Your task to perform on an android device: check battery use Image 0: 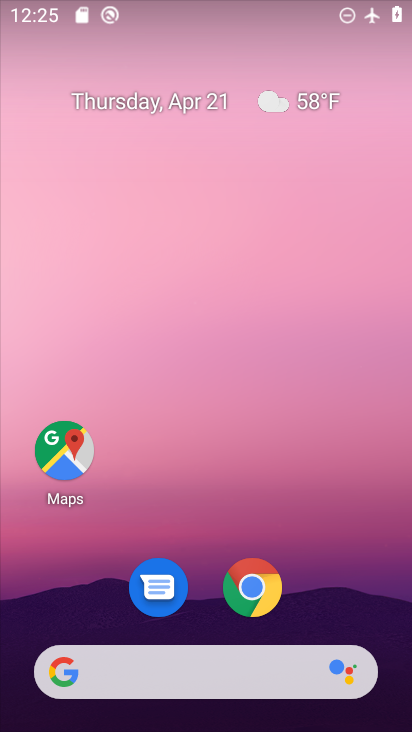
Step 0: click (197, 222)
Your task to perform on an android device: check battery use Image 1: 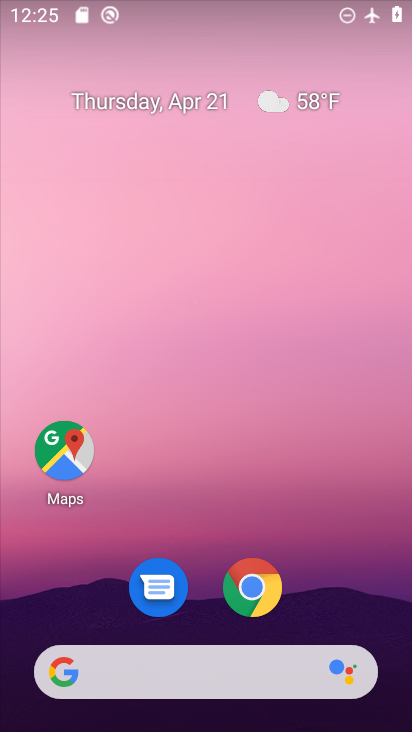
Step 1: drag from (214, 593) to (301, 57)
Your task to perform on an android device: check battery use Image 2: 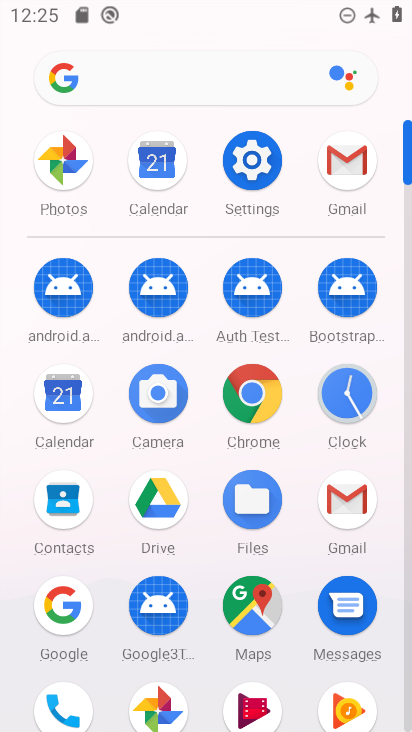
Step 2: click (249, 177)
Your task to perform on an android device: check battery use Image 3: 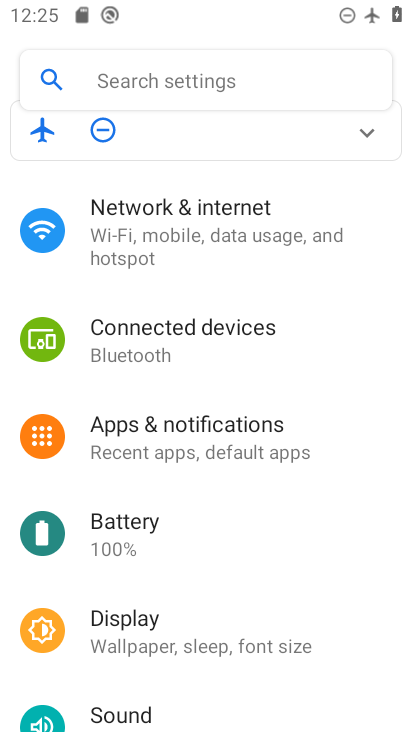
Step 3: click (135, 556)
Your task to perform on an android device: check battery use Image 4: 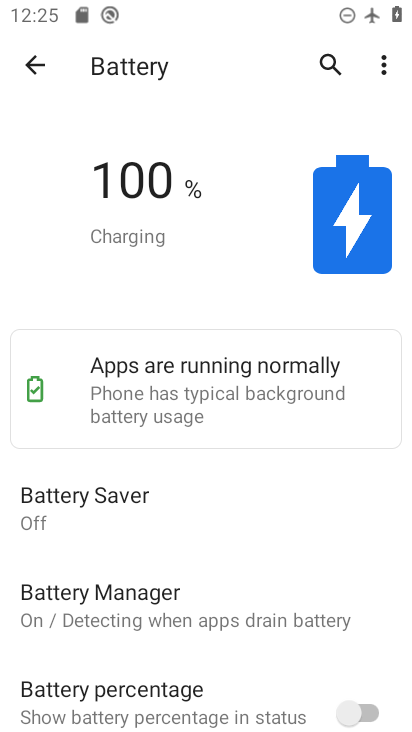
Step 4: drag from (150, 481) to (161, 187)
Your task to perform on an android device: check battery use Image 5: 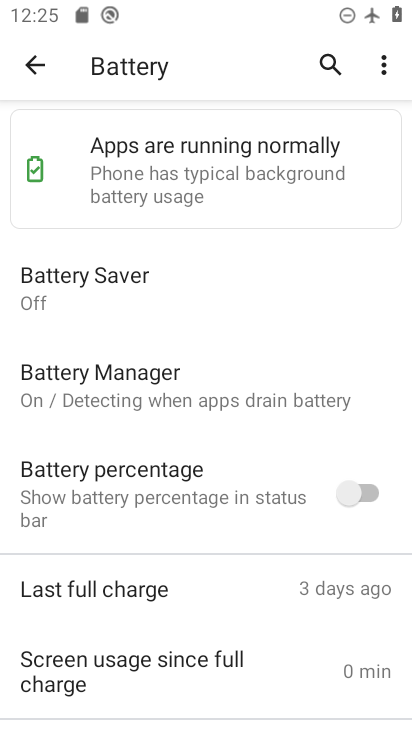
Step 5: click (380, 53)
Your task to perform on an android device: check battery use Image 6: 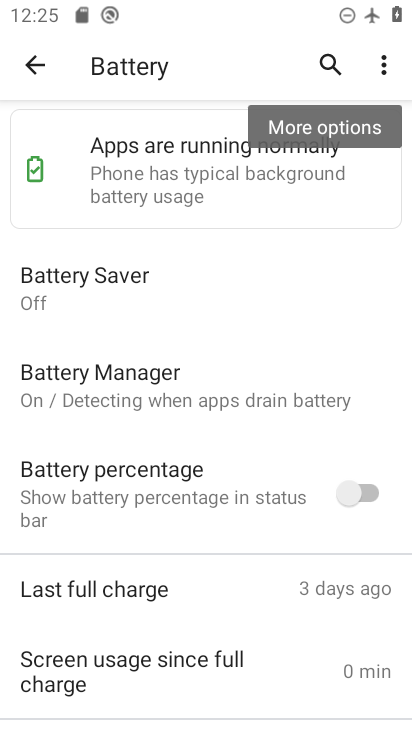
Step 6: click (380, 92)
Your task to perform on an android device: check battery use Image 7: 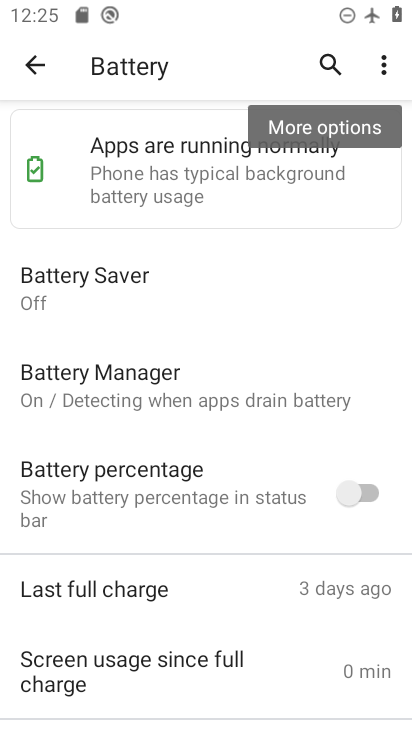
Step 7: click (388, 60)
Your task to perform on an android device: check battery use Image 8: 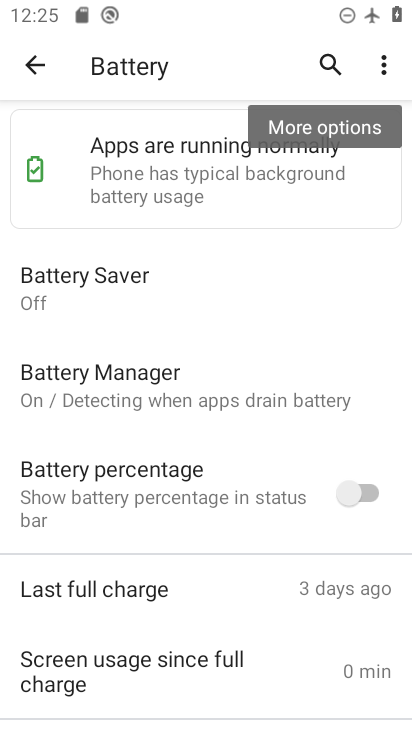
Step 8: click (388, 72)
Your task to perform on an android device: check battery use Image 9: 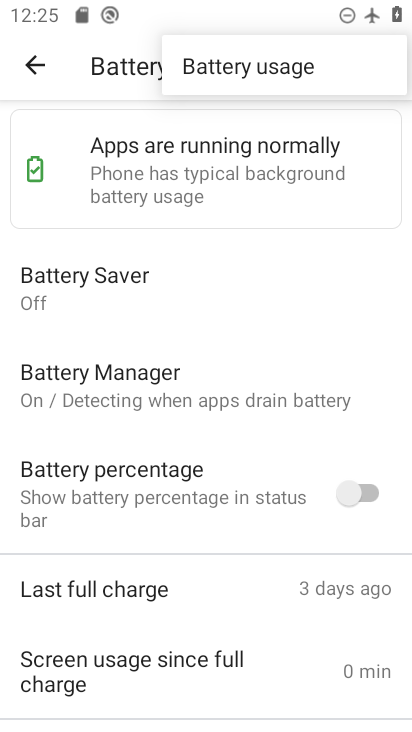
Step 9: click (263, 69)
Your task to perform on an android device: check battery use Image 10: 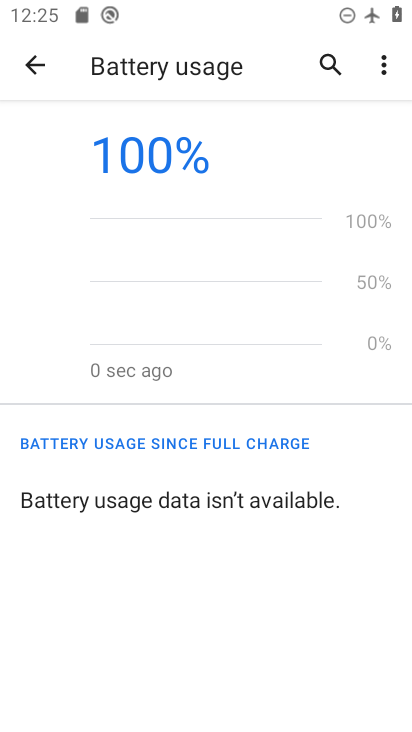
Step 10: task complete